Your task to perform on an android device: turn pop-ups off in chrome Image 0: 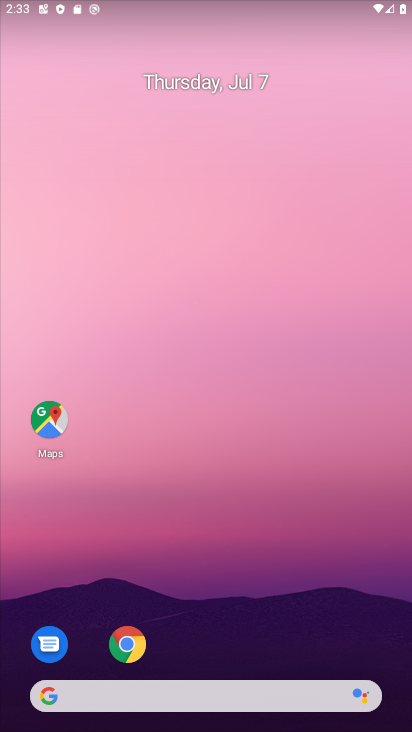
Step 0: press home button
Your task to perform on an android device: turn pop-ups off in chrome Image 1: 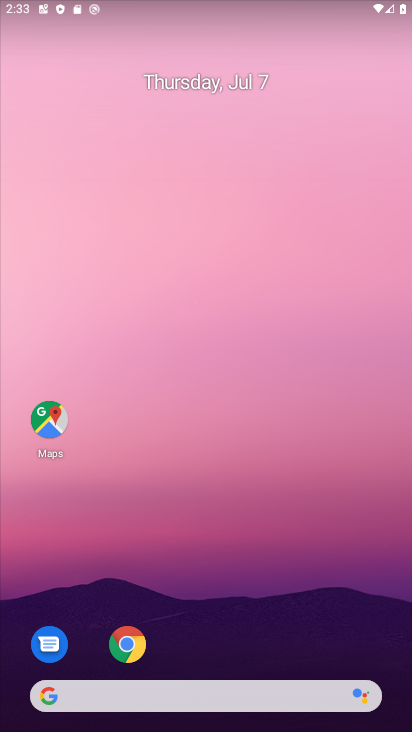
Step 1: click (127, 645)
Your task to perform on an android device: turn pop-ups off in chrome Image 2: 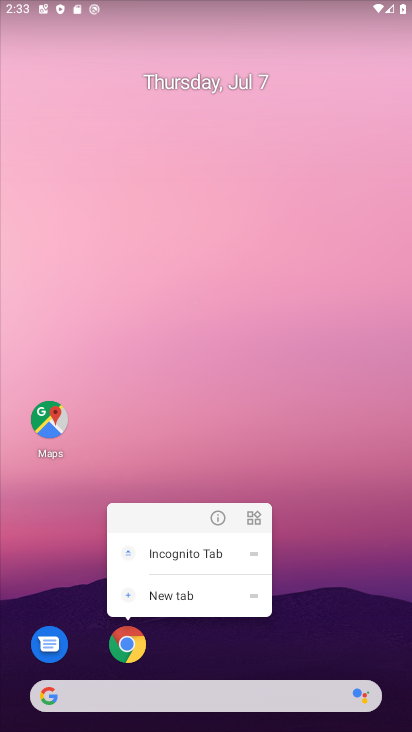
Step 2: click (259, 645)
Your task to perform on an android device: turn pop-ups off in chrome Image 3: 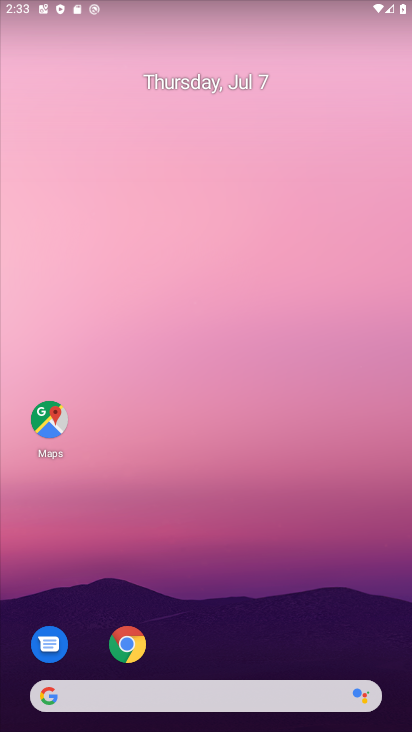
Step 3: drag from (267, 651) to (272, 155)
Your task to perform on an android device: turn pop-ups off in chrome Image 4: 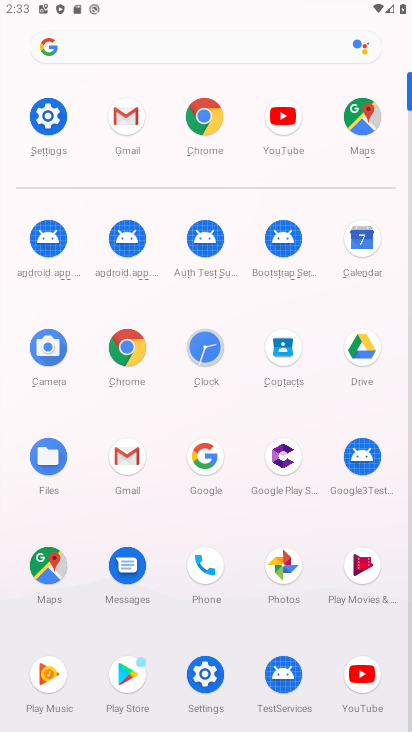
Step 4: click (205, 119)
Your task to perform on an android device: turn pop-ups off in chrome Image 5: 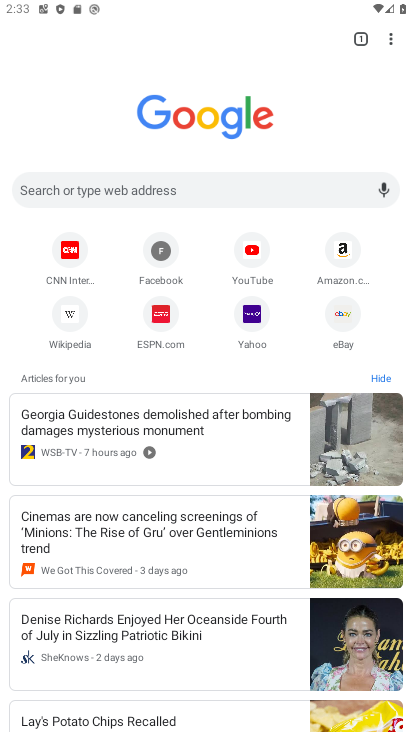
Step 5: drag from (395, 43) to (255, 321)
Your task to perform on an android device: turn pop-ups off in chrome Image 6: 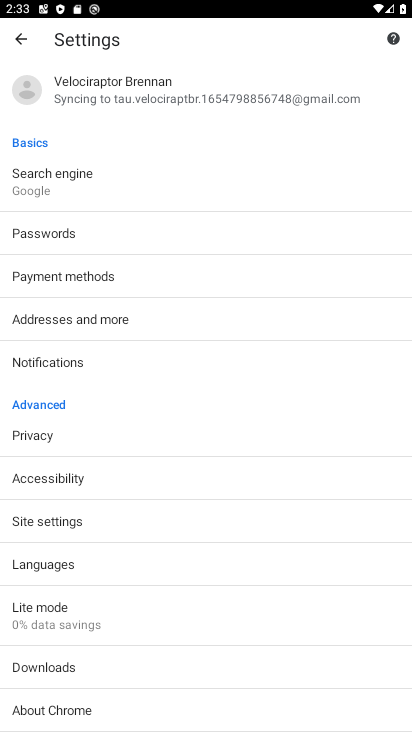
Step 6: click (41, 520)
Your task to perform on an android device: turn pop-ups off in chrome Image 7: 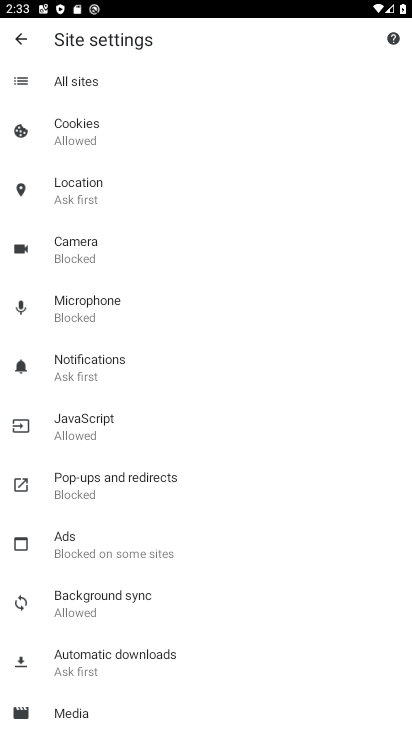
Step 7: click (128, 479)
Your task to perform on an android device: turn pop-ups off in chrome Image 8: 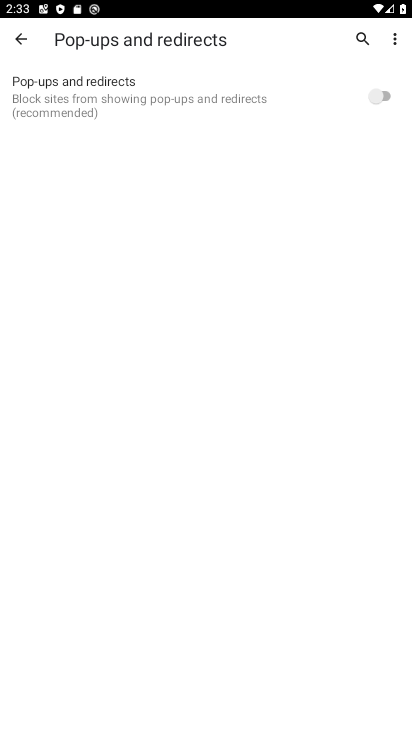
Step 8: task complete